Your task to perform on an android device: Search for pizza restaurants on Maps Image 0: 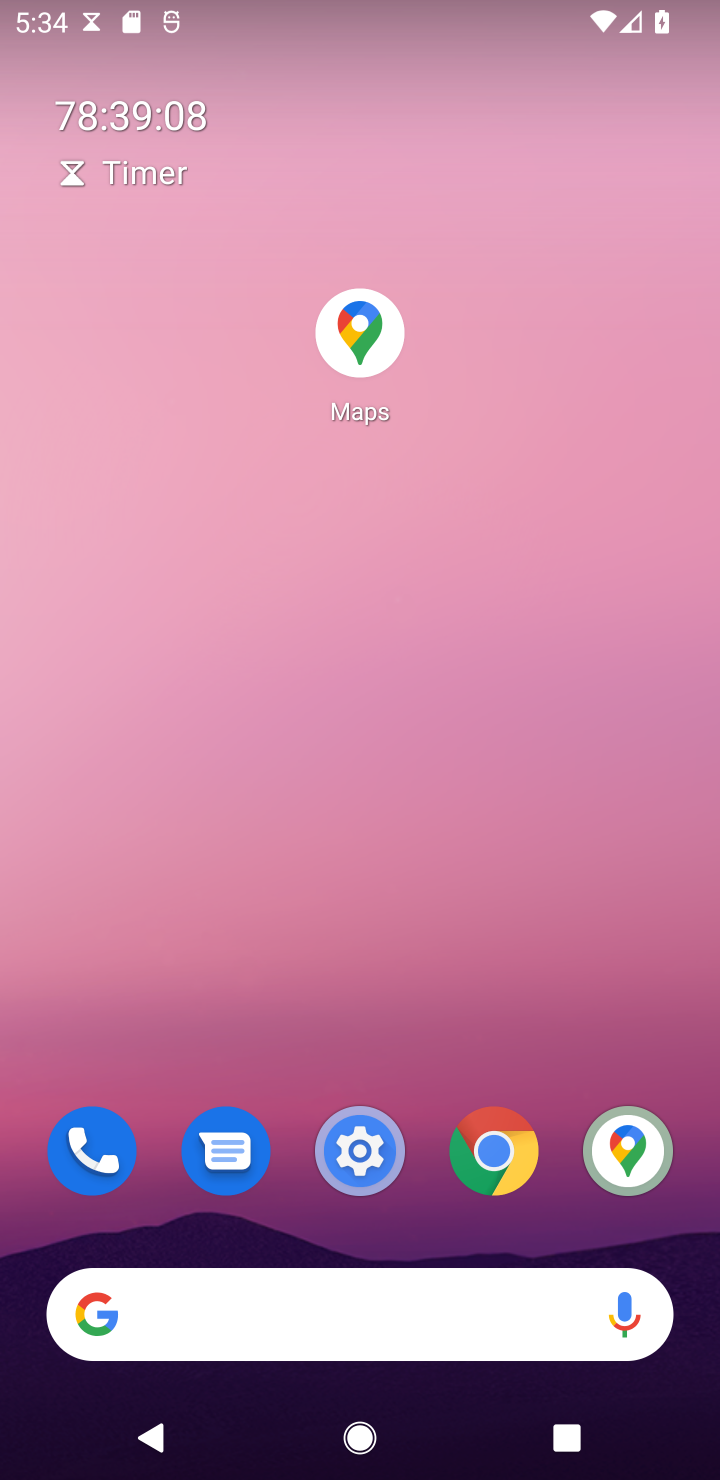
Step 0: drag from (315, 746) to (305, 450)
Your task to perform on an android device: Search for pizza restaurants on Maps Image 1: 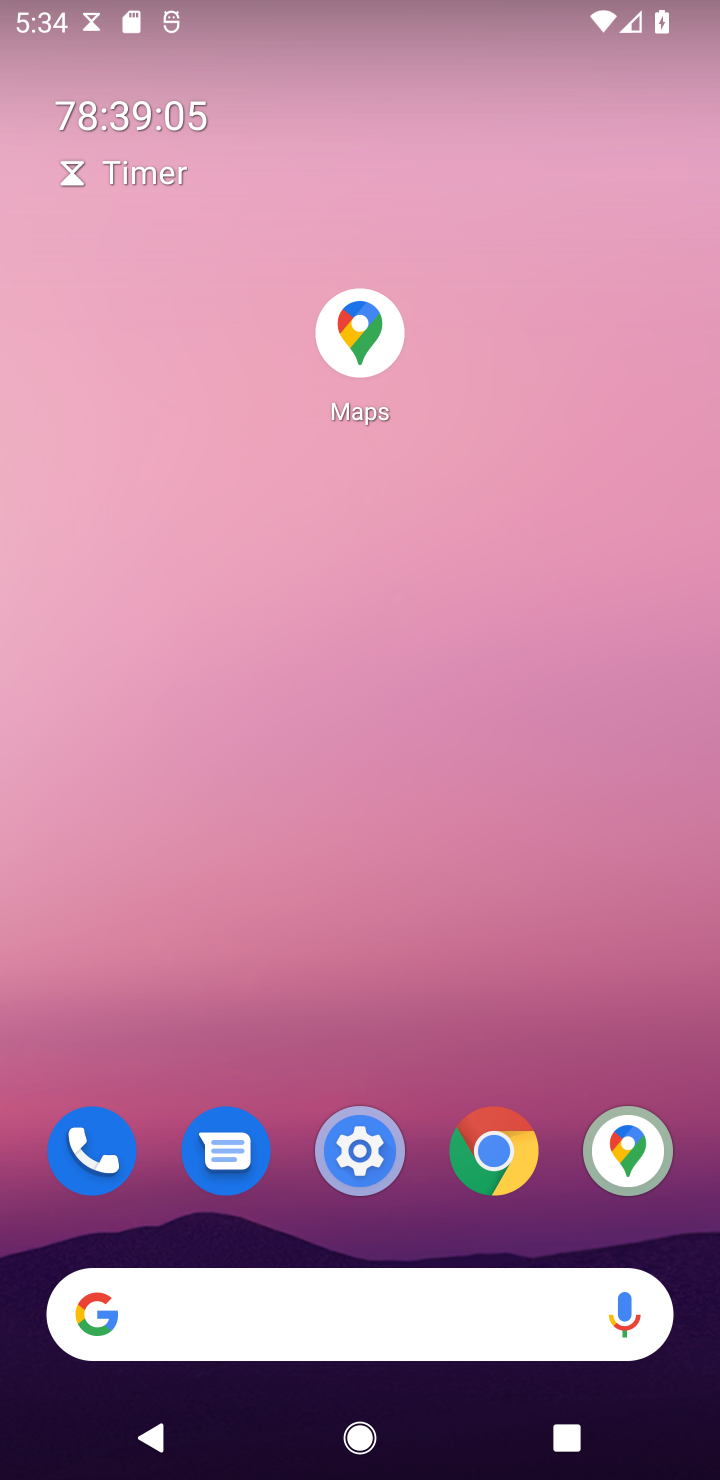
Step 1: drag from (392, 968) to (417, 596)
Your task to perform on an android device: Search for pizza restaurants on Maps Image 2: 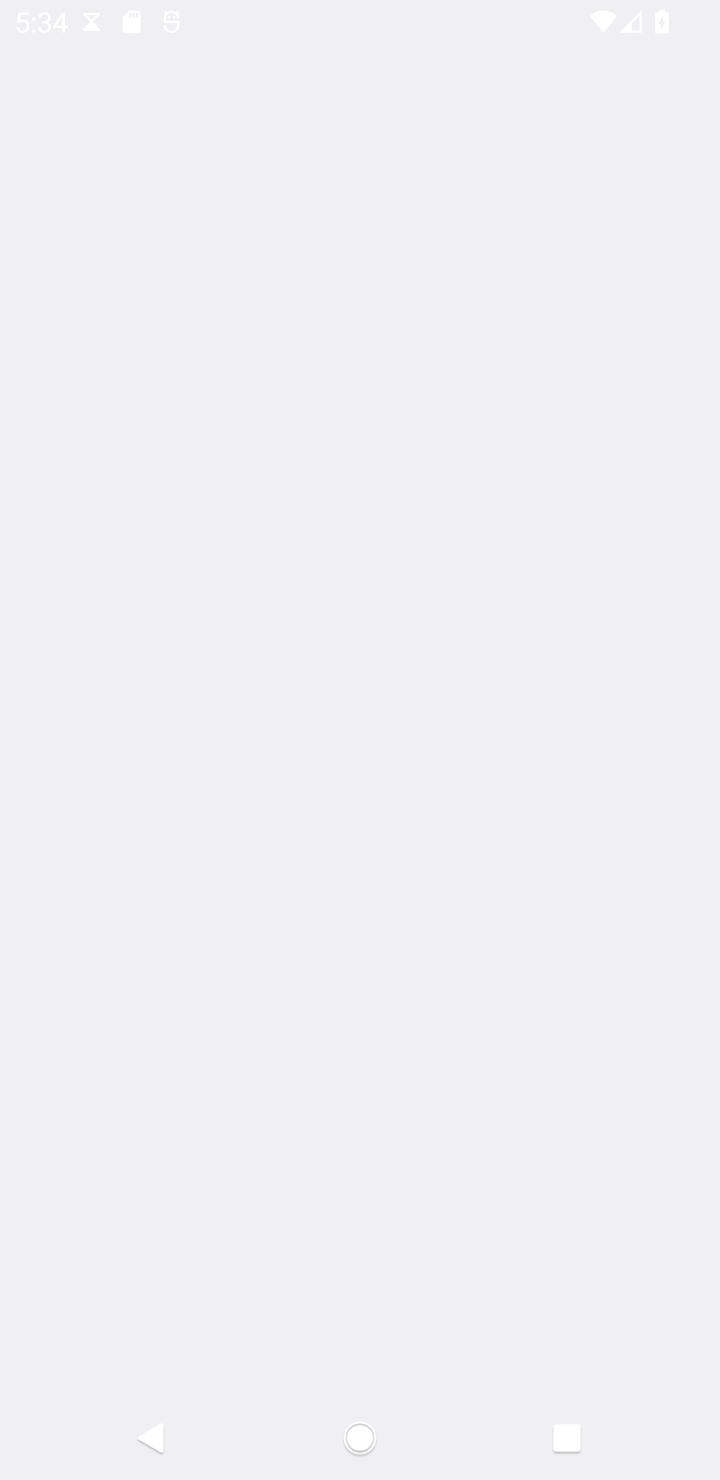
Step 2: click (342, 321)
Your task to perform on an android device: Search for pizza restaurants on Maps Image 3: 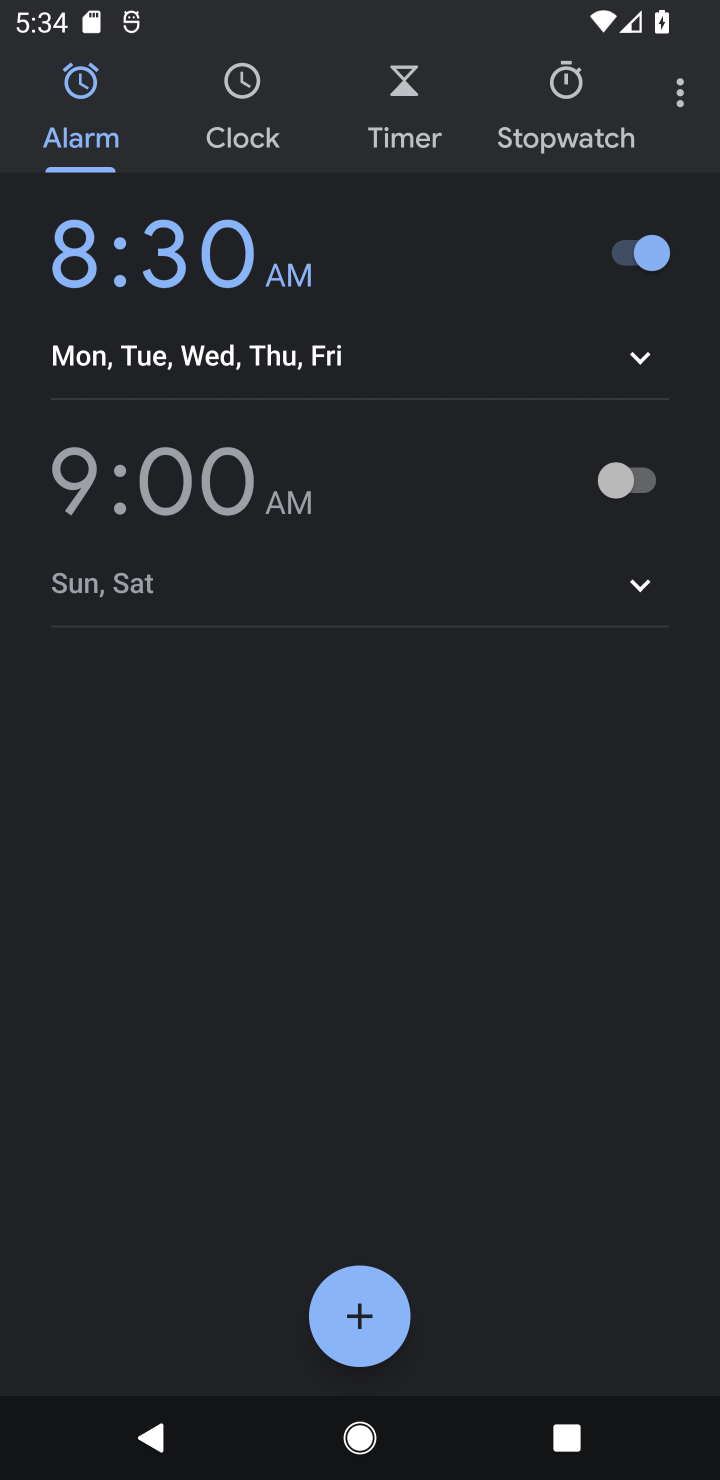
Step 3: press home button
Your task to perform on an android device: Search for pizza restaurants on Maps Image 4: 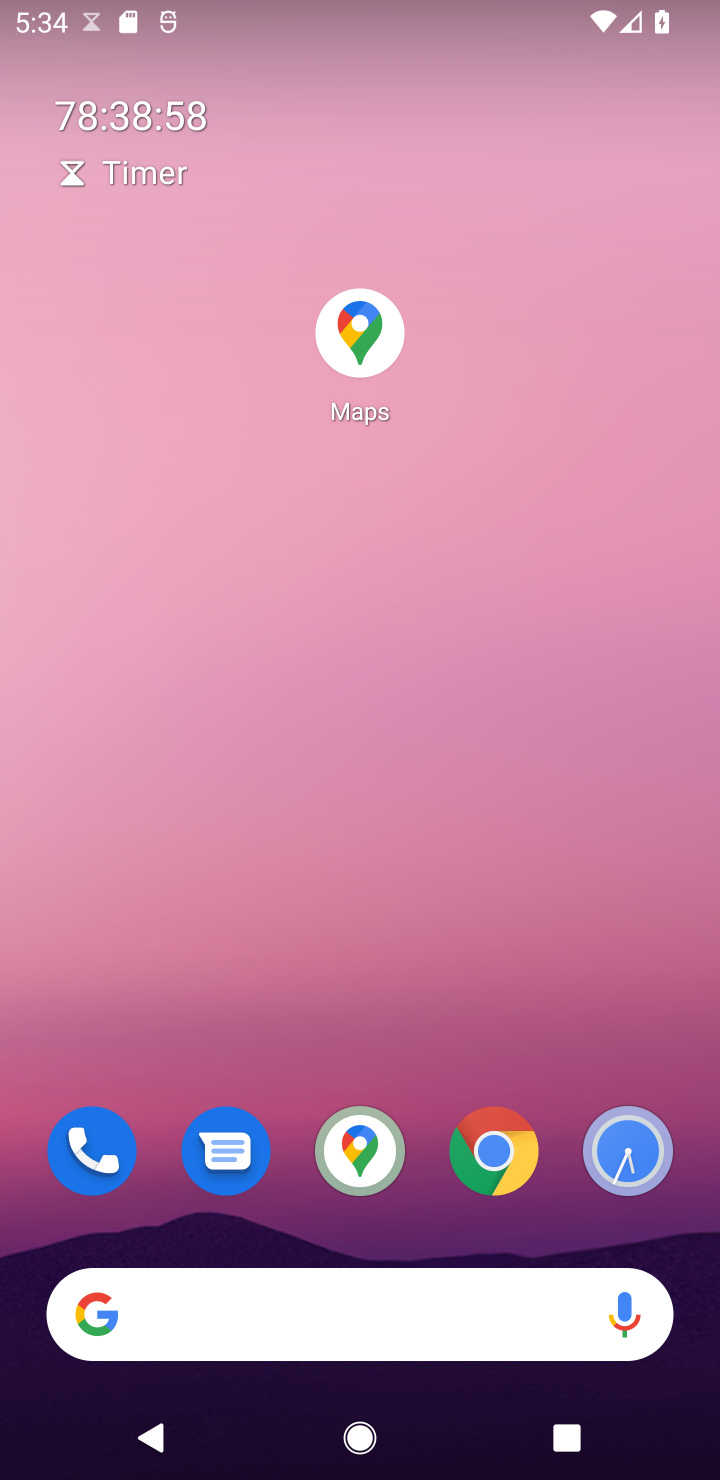
Step 4: drag from (528, 1116) to (548, 342)
Your task to perform on an android device: Search for pizza restaurants on Maps Image 5: 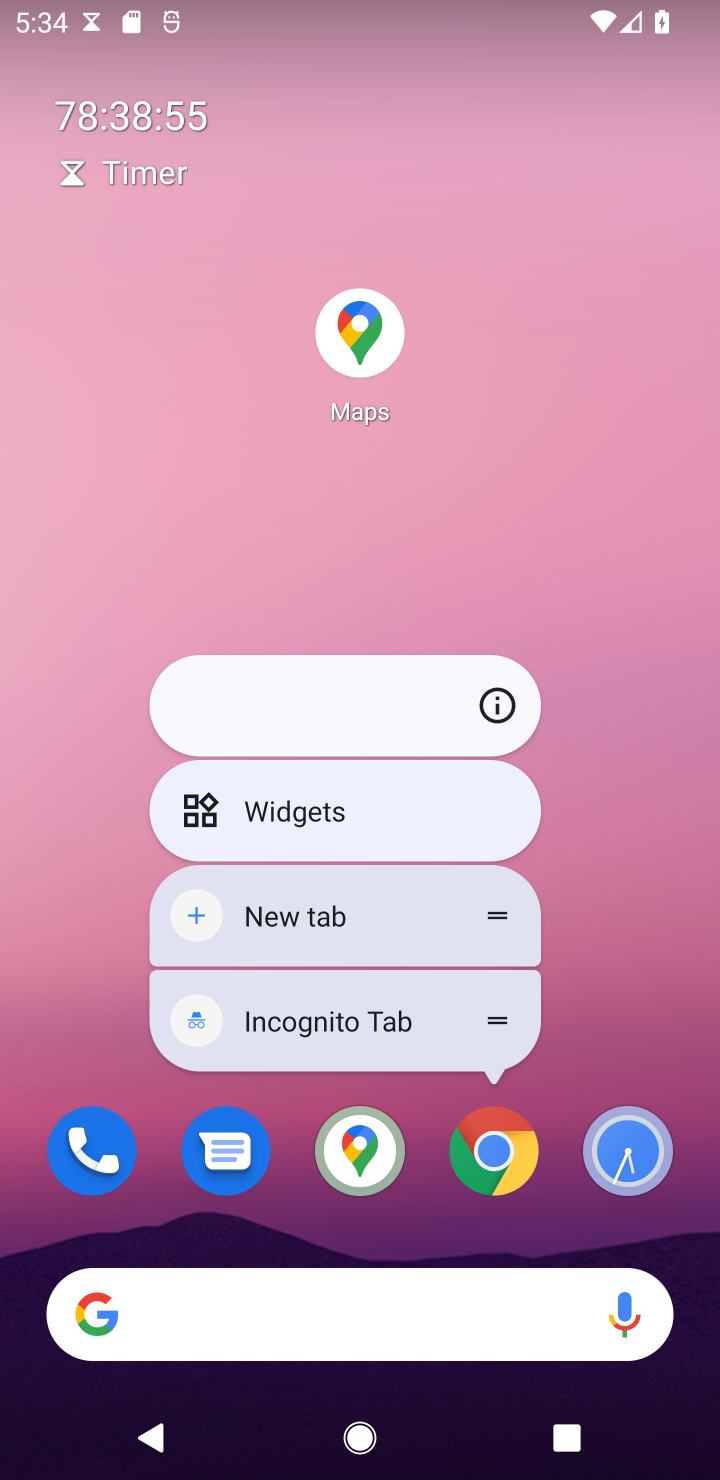
Step 5: click (576, 842)
Your task to perform on an android device: Search for pizza restaurants on Maps Image 6: 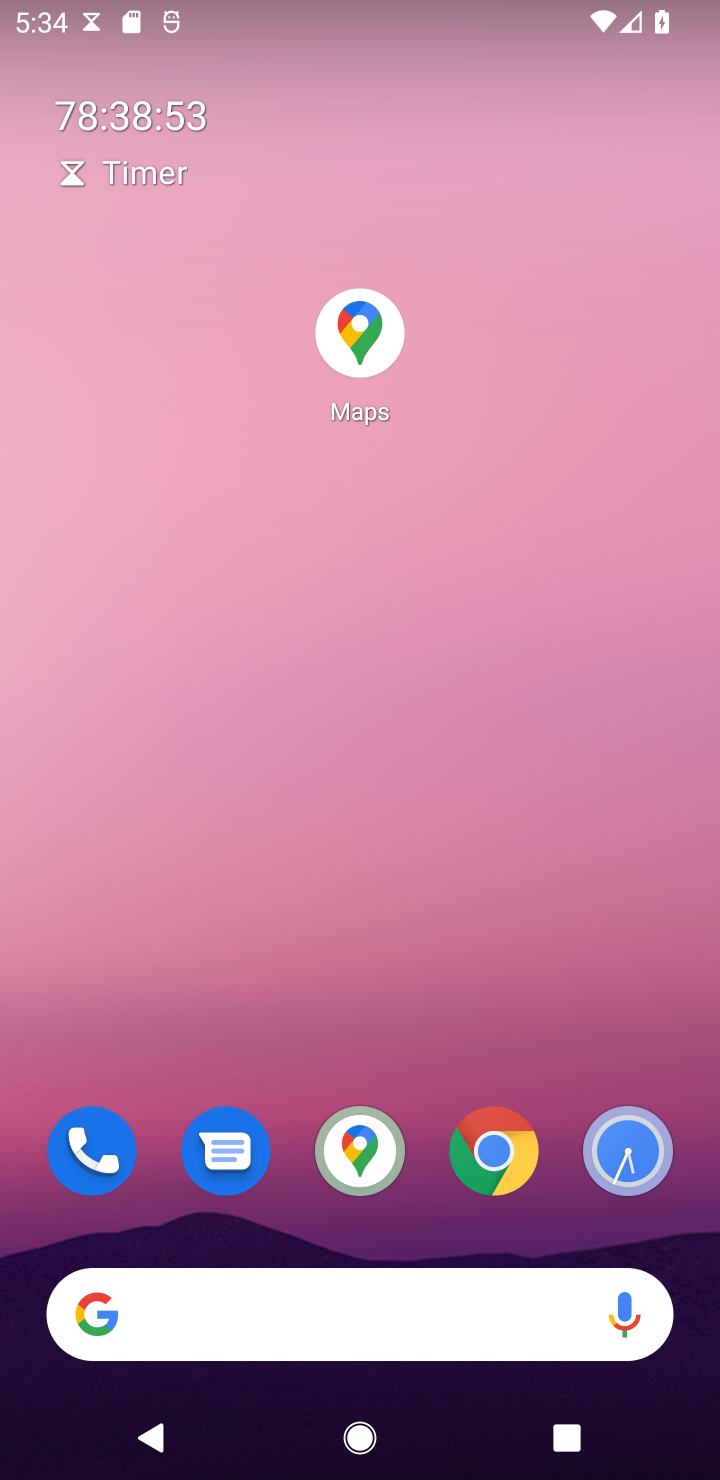
Step 6: drag from (442, 1127) to (441, 324)
Your task to perform on an android device: Search for pizza restaurants on Maps Image 7: 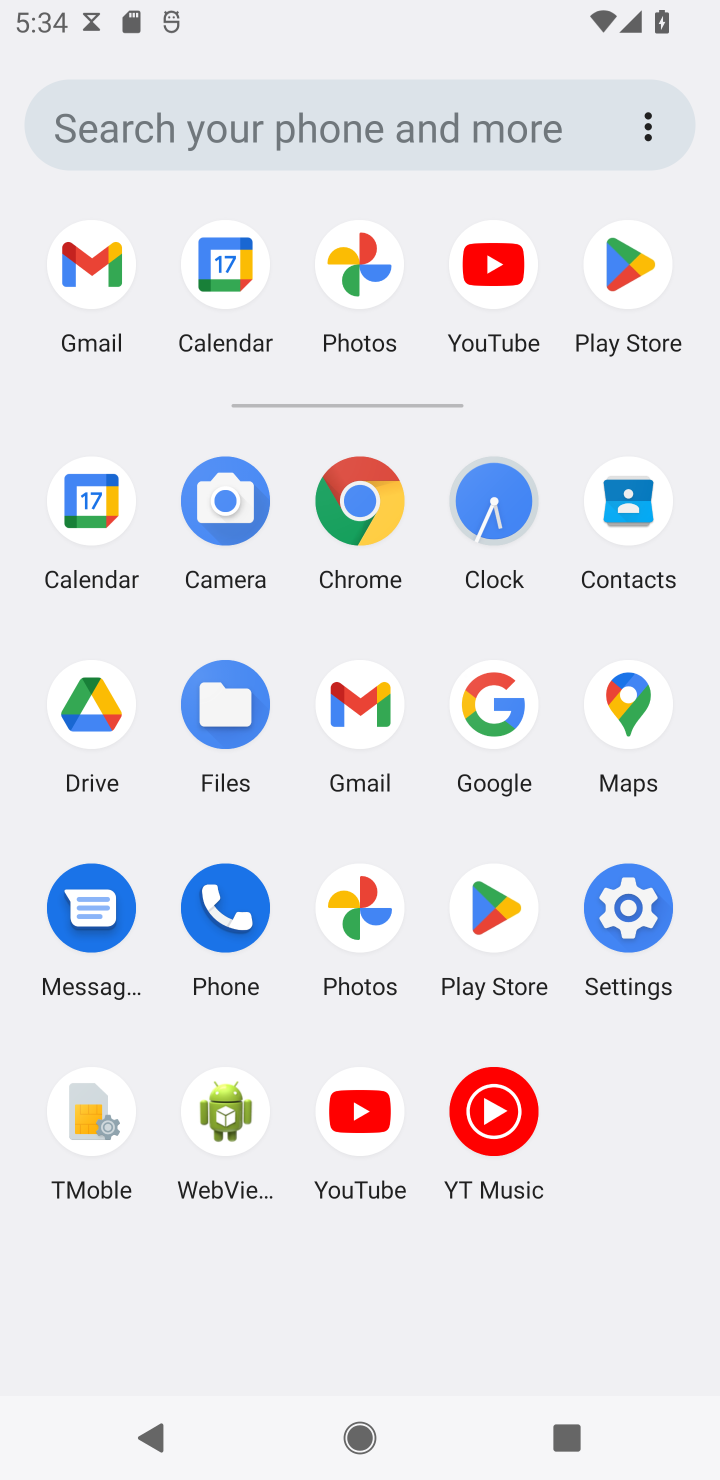
Step 7: click (619, 691)
Your task to perform on an android device: Search for pizza restaurants on Maps Image 8: 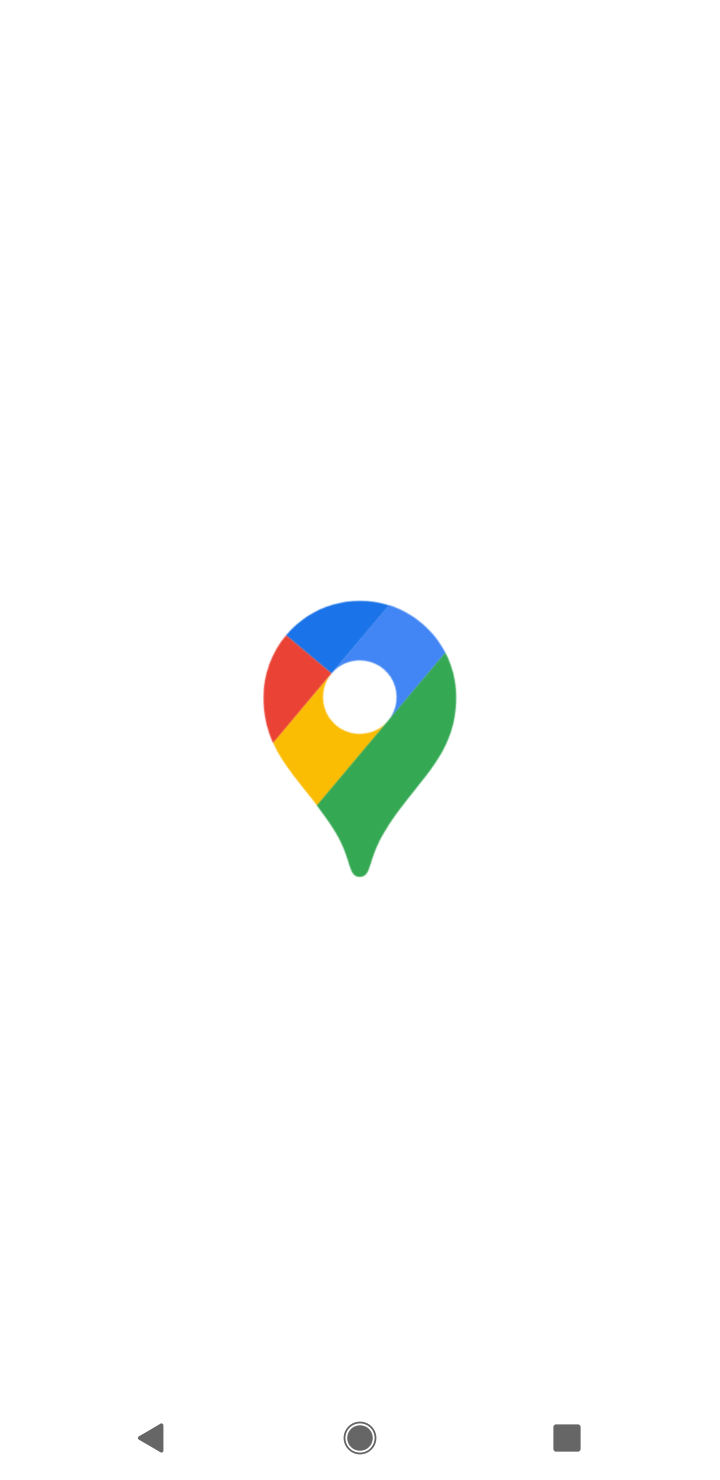
Step 8: task complete